Your task to perform on an android device: set the stopwatch Image 0: 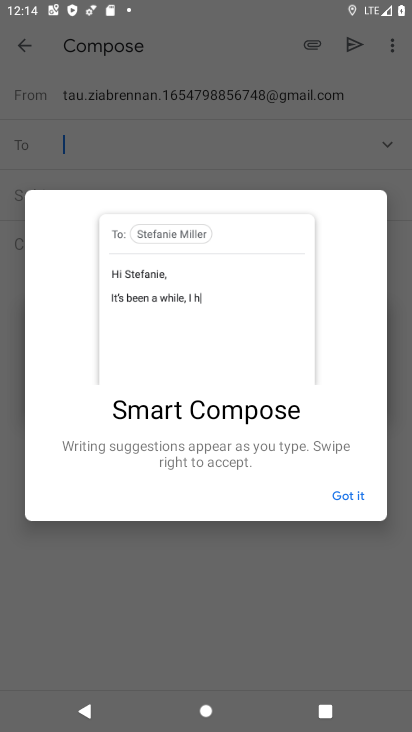
Step 0: press home button
Your task to perform on an android device: set the stopwatch Image 1: 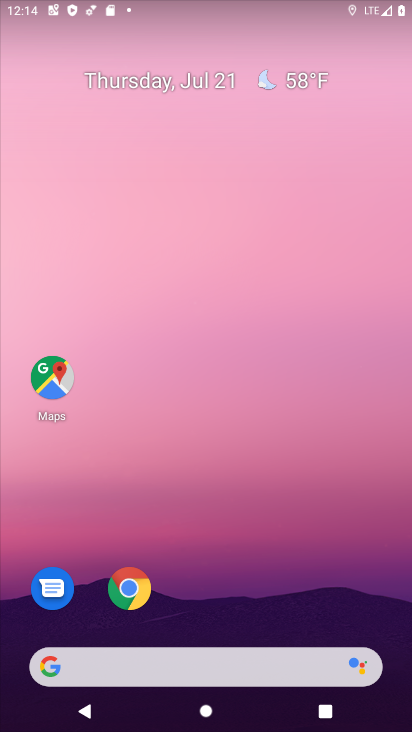
Step 1: drag from (267, 545) to (266, 89)
Your task to perform on an android device: set the stopwatch Image 2: 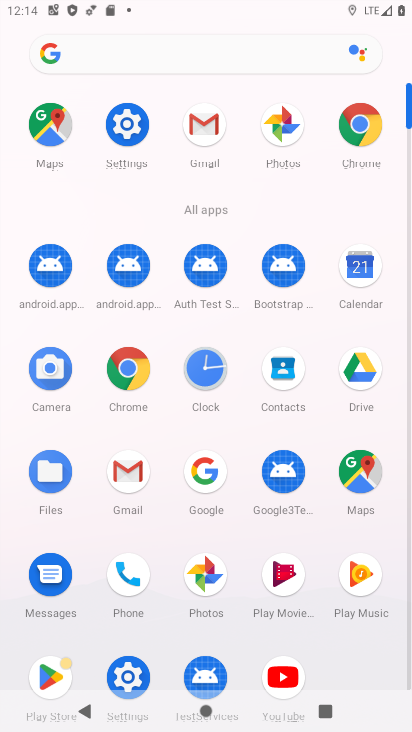
Step 2: click (206, 374)
Your task to perform on an android device: set the stopwatch Image 3: 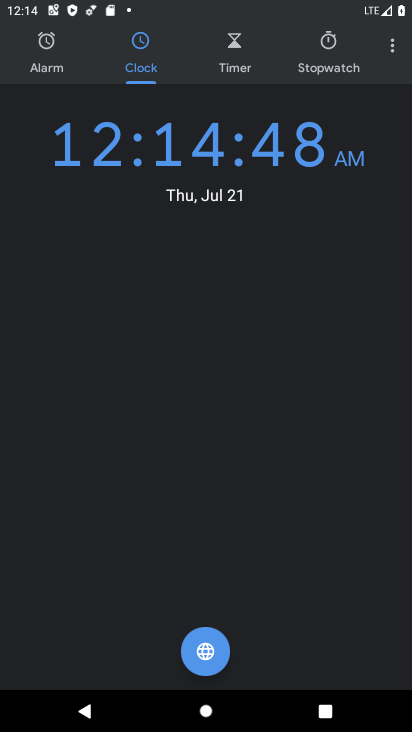
Step 3: click (339, 78)
Your task to perform on an android device: set the stopwatch Image 4: 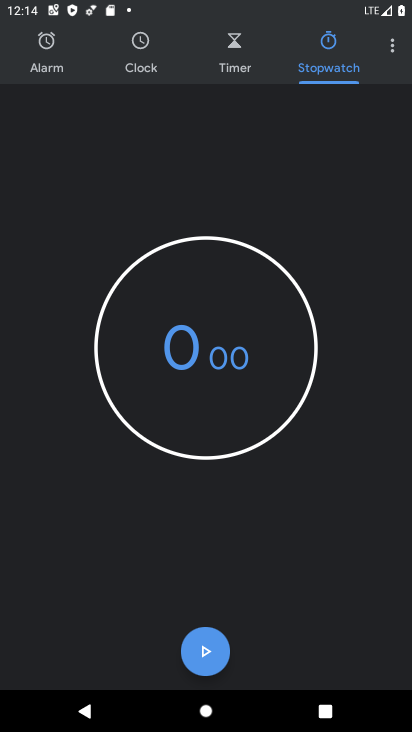
Step 4: click (196, 644)
Your task to perform on an android device: set the stopwatch Image 5: 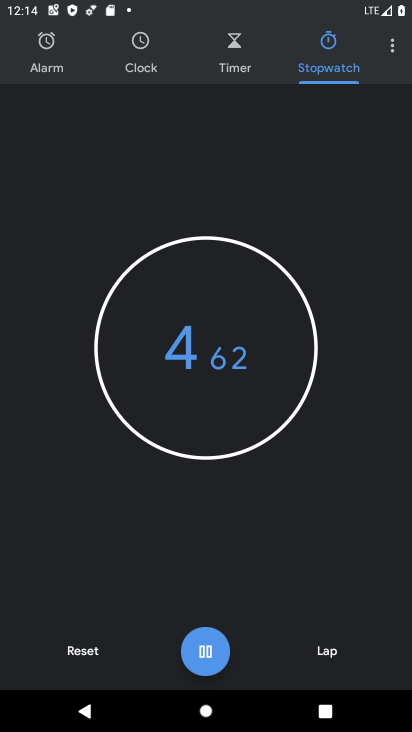
Step 5: task complete